Your task to perform on an android device: Open ESPN.com Image 0: 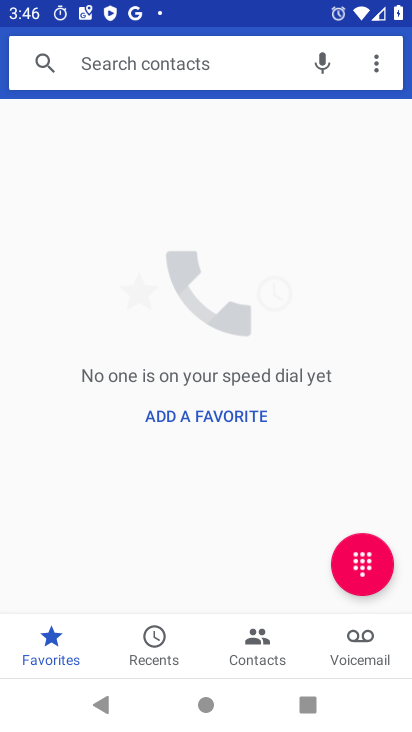
Step 0: press home button
Your task to perform on an android device: Open ESPN.com Image 1: 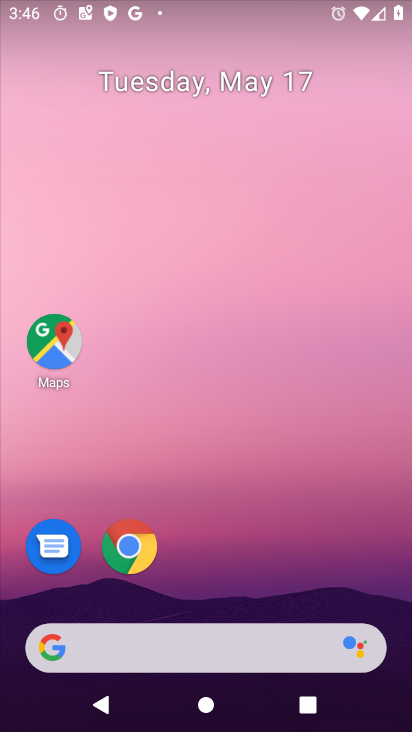
Step 1: click (125, 546)
Your task to perform on an android device: Open ESPN.com Image 2: 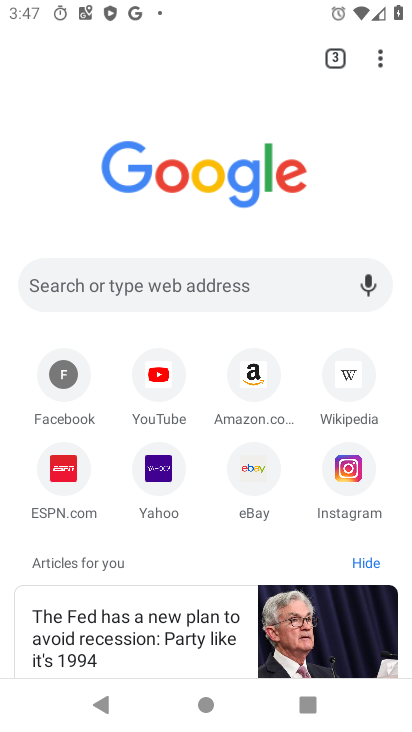
Step 2: click (123, 281)
Your task to perform on an android device: Open ESPN.com Image 3: 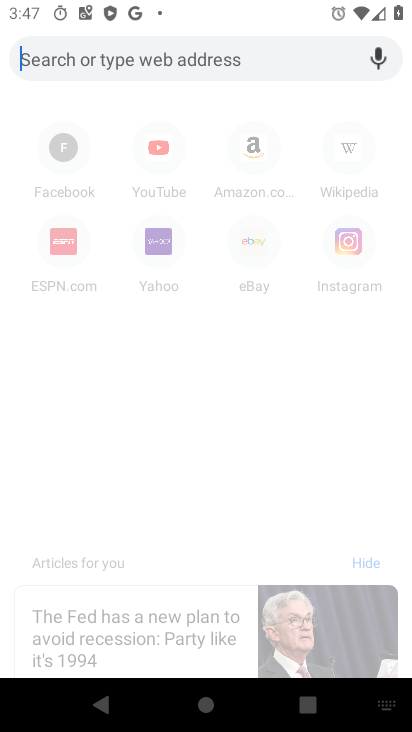
Step 3: type "ESPN.com"
Your task to perform on an android device: Open ESPN.com Image 4: 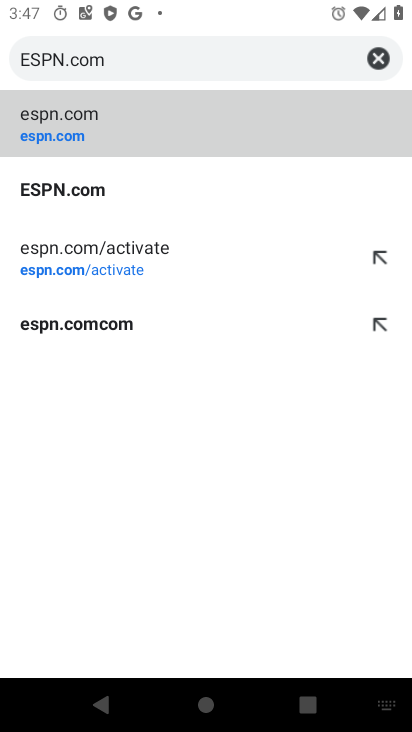
Step 4: click (83, 192)
Your task to perform on an android device: Open ESPN.com Image 5: 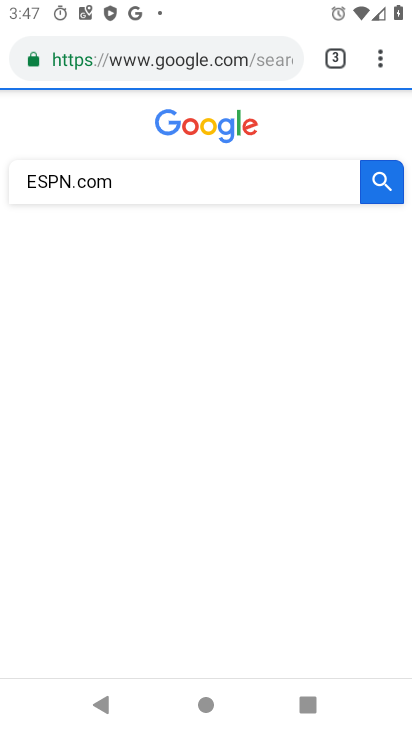
Step 5: task complete